Your task to perform on an android device: Open calendar and show me the fourth week of next month Image 0: 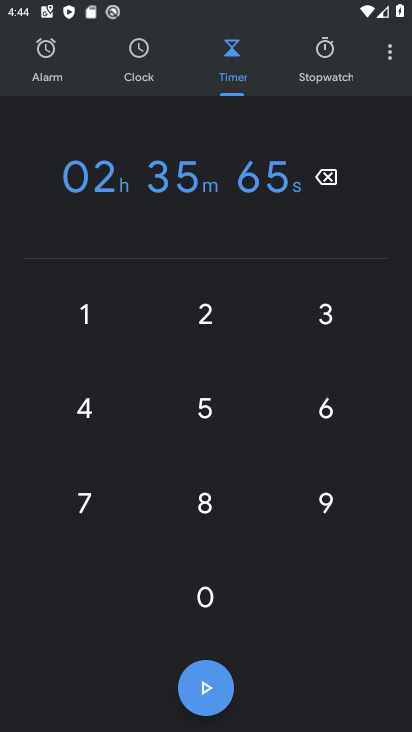
Step 0: press home button
Your task to perform on an android device: Open calendar and show me the fourth week of next month Image 1: 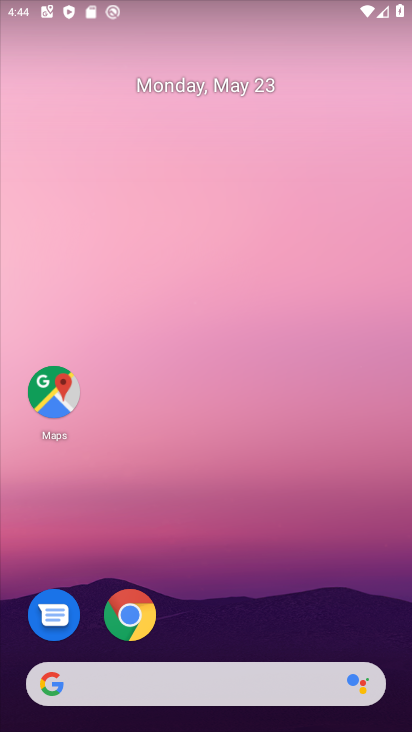
Step 1: drag from (177, 601) to (273, 93)
Your task to perform on an android device: Open calendar and show me the fourth week of next month Image 2: 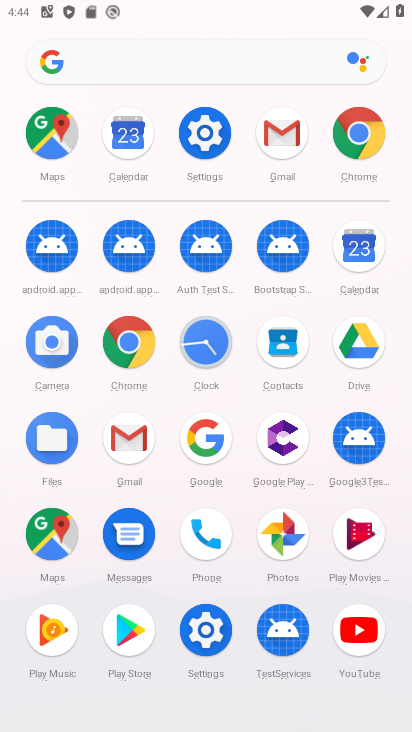
Step 2: click (131, 137)
Your task to perform on an android device: Open calendar and show me the fourth week of next month Image 3: 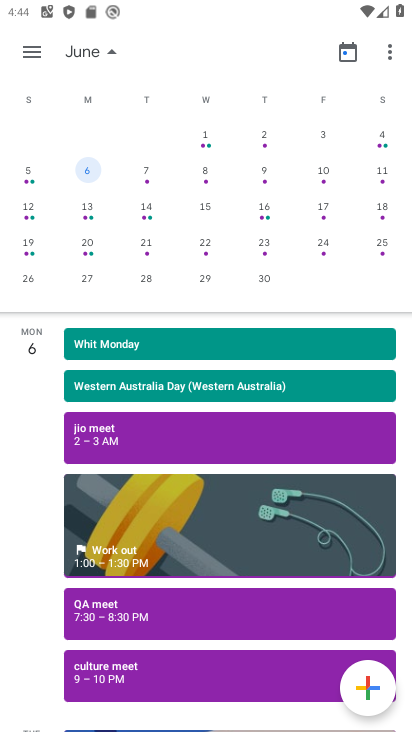
Step 3: click (98, 53)
Your task to perform on an android device: Open calendar and show me the fourth week of next month Image 4: 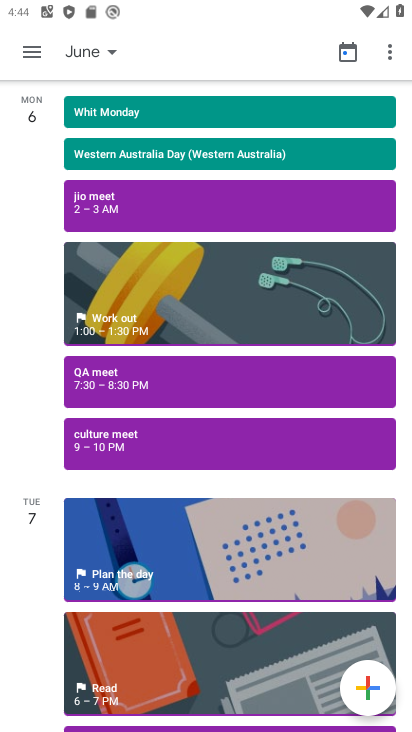
Step 4: click (80, 44)
Your task to perform on an android device: Open calendar and show me the fourth week of next month Image 5: 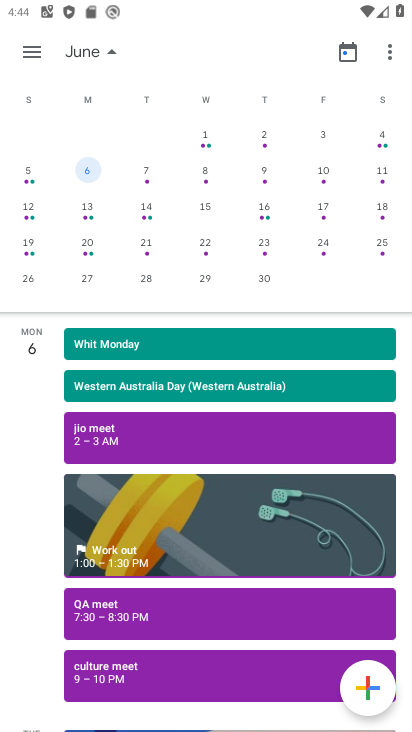
Step 5: drag from (141, 196) to (0, 168)
Your task to perform on an android device: Open calendar and show me the fourth week of next month Image 6: 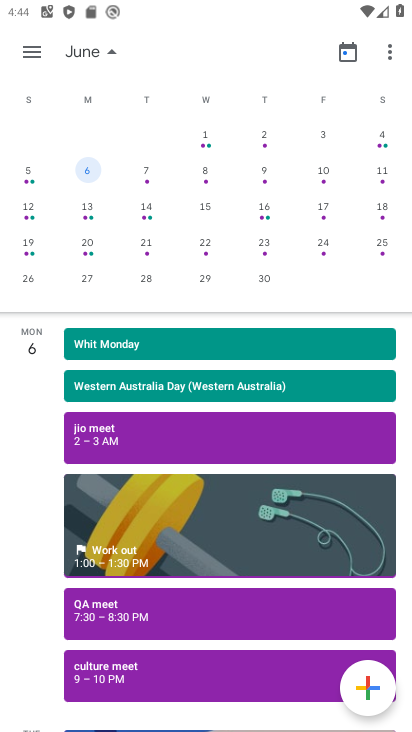
Step 6: click (90, 240)
Your task to perform on an android device: Open calendar and show me the fourth week of next month Image 7: 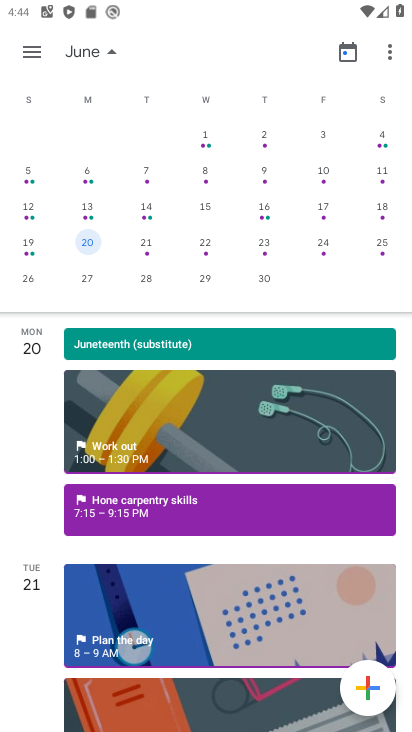
Step 7: task complete